Your task to perform on an android device: Open location settings Image 0: 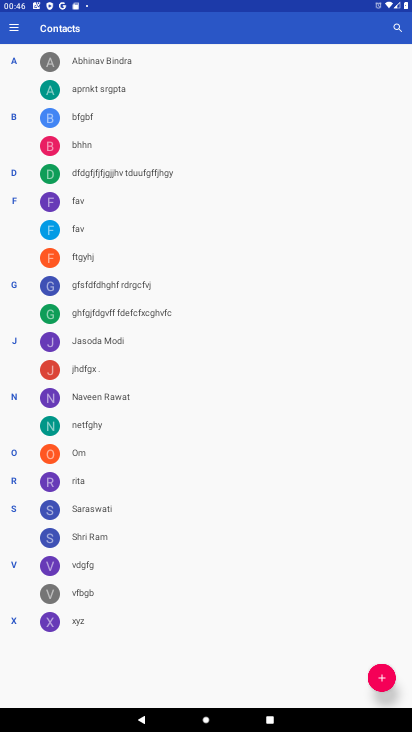
Step 0: press home button
Your task to perform on an android device: Open location settings Image 1: 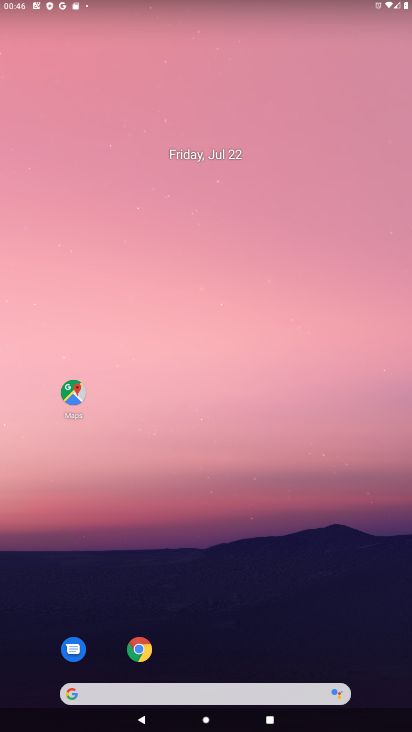
Step 1: drag from (274, 598) to (143, 114)
Your task to perform on an android device: Open location settings Image 2: 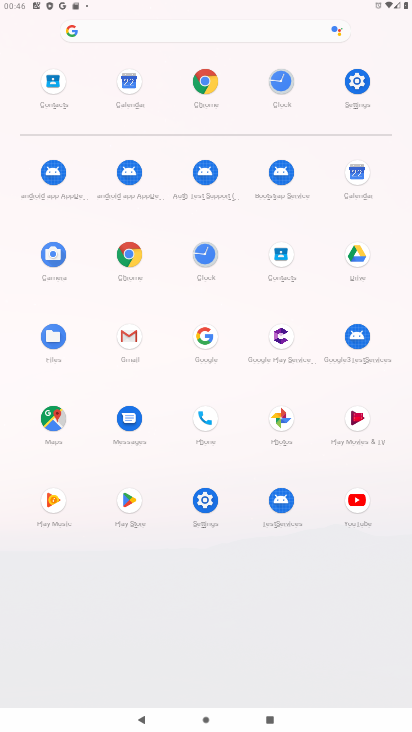
Step 2: click (348, 78)
Your task to perform on an android device: Open location settings Image 3: 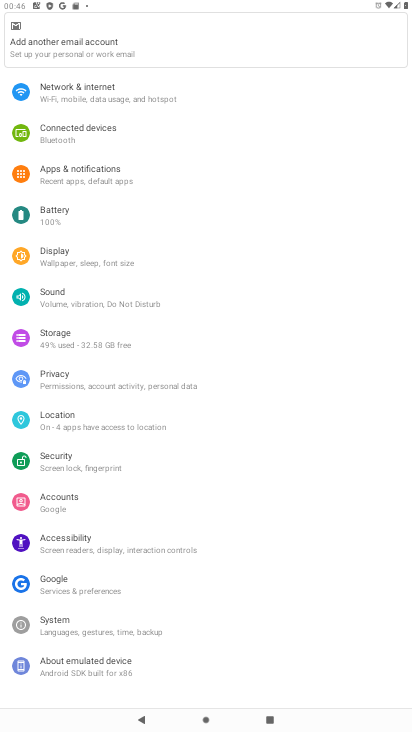
Step 3: click (62, 414)
Your task to perform on an android device: Open location settings Image 4: 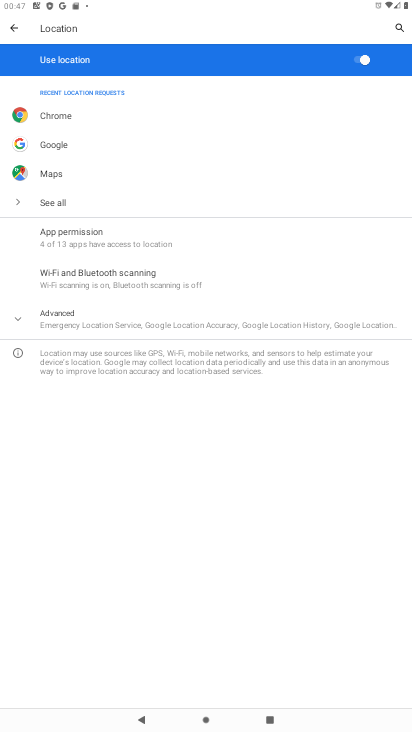
Step 4: task complete